Your task to perform on an android device: Go to Maps Image 0: 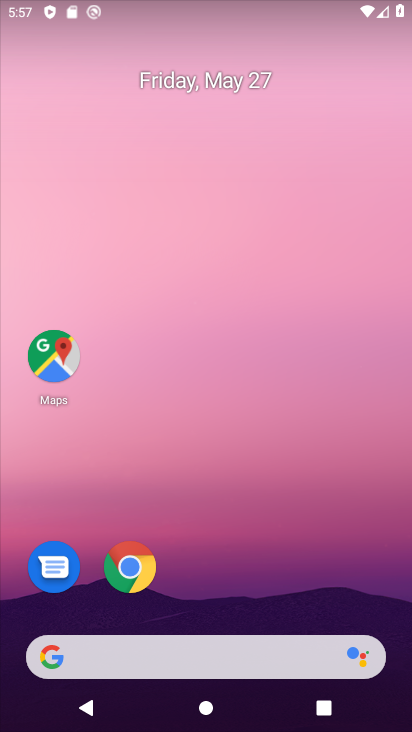
Step 0: click (61, 356)
Your task to perform on an android device: Go to Maps Image 1: 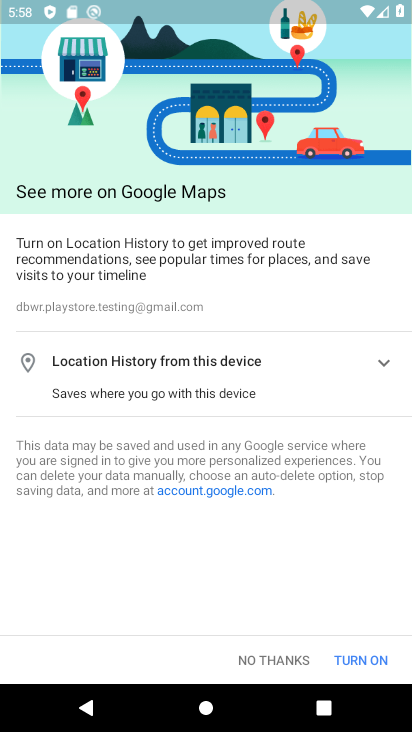
Step 1: click (263, 648)
Your task to perform on an android device: Go to Maps Image 2: 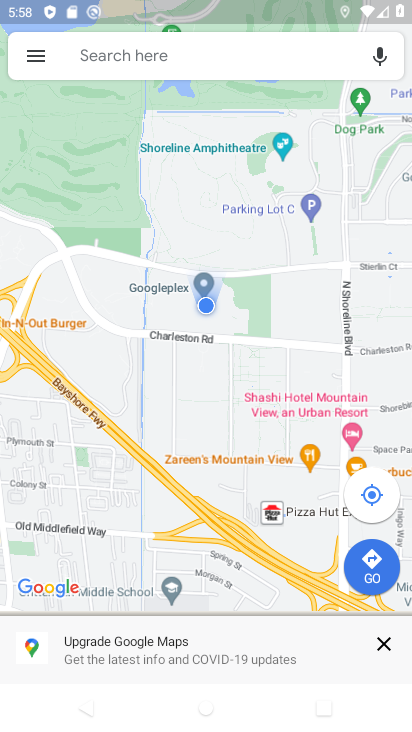
Step 2: task complete